Your task to perform on an android device: remove spam from my inbox in the gmail app Image 0: 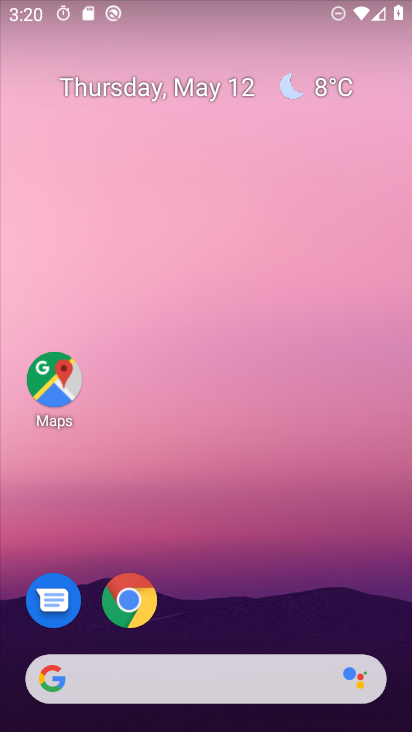
Step 0: drag from (191, 729) to (236, 264)
Your task to perform on an android device: remove spam from my inbox in the gmail app Image 1: 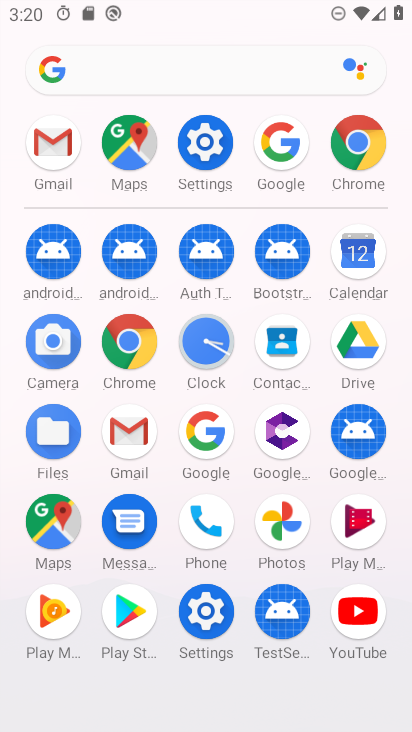
Step 1: click (124, 424)
Your task to perform on an android device: remove spam from my inbox in the gmail app Image 2: 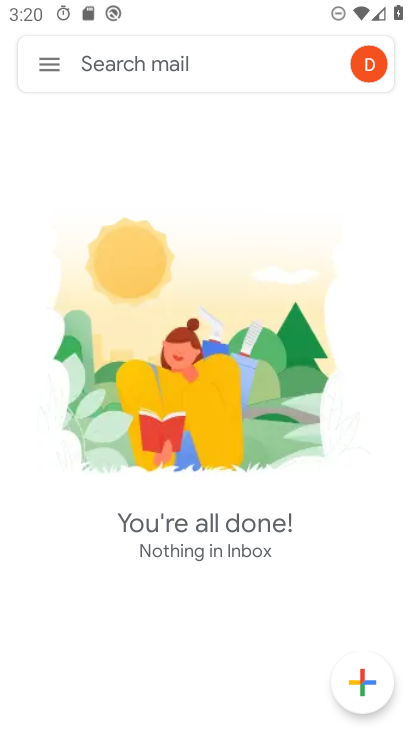
Step 2: task complete